Your task to perform on an android device: empty trash in google photos Image 0: 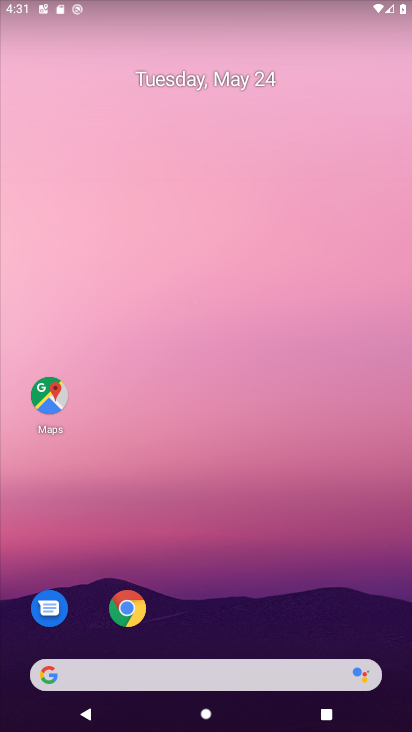
Step 0: drag from (211, 644) to (209, 240)
Your task to perform on an android device: empty trash in google photos Image 1: 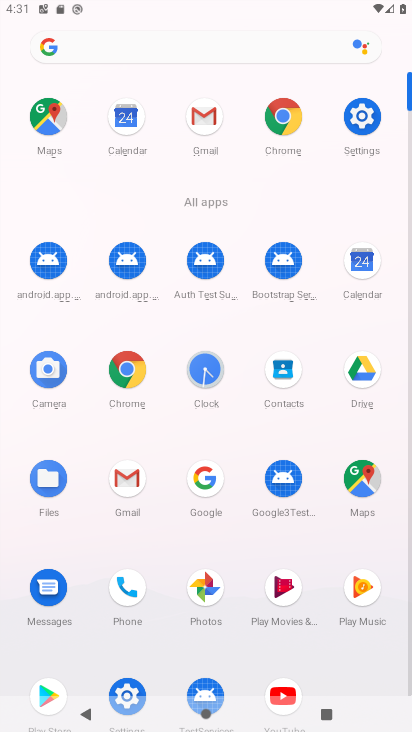
Step 1: click (208, 585)
Your task to perform on an android device: empty trash in google photos Image 2: 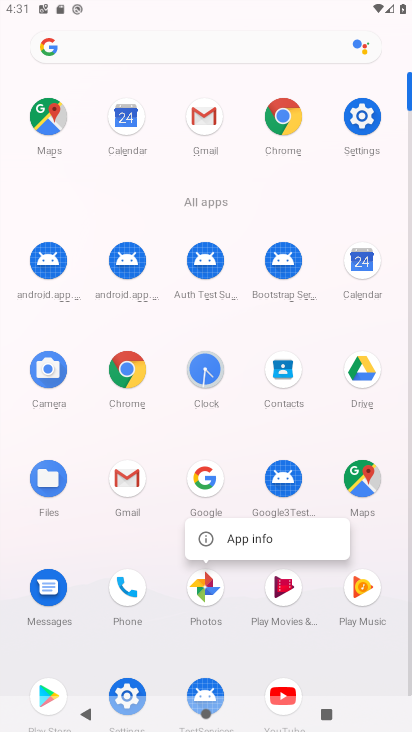
Step 2: click (203, 580)
Your task to perform on an android device: empty trash in google photos Image 3: 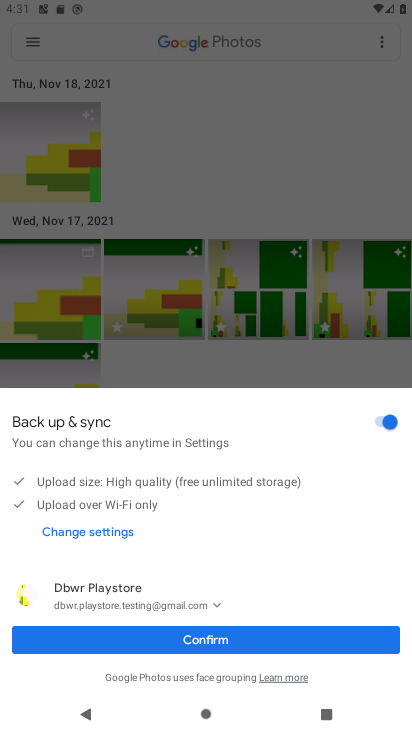
Step 3: click (212, 630)
Your task to perform on an android device: empty trash in google photos Image 4: 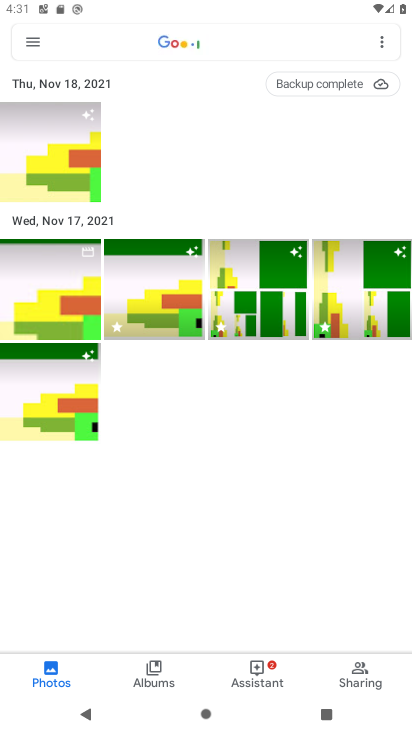
Step 4: click (30, 43)
Your task to perform on an android device: empty trash in google photos Image 5: 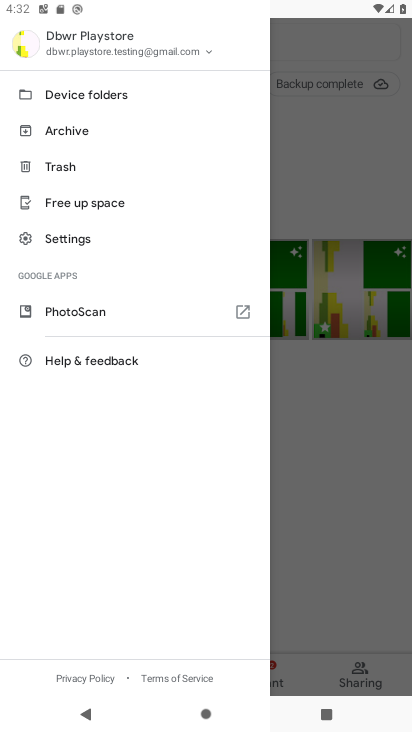
Step 5: click (45, 172)
Your task to perform on an android device: empty trash in google photos Image 6: 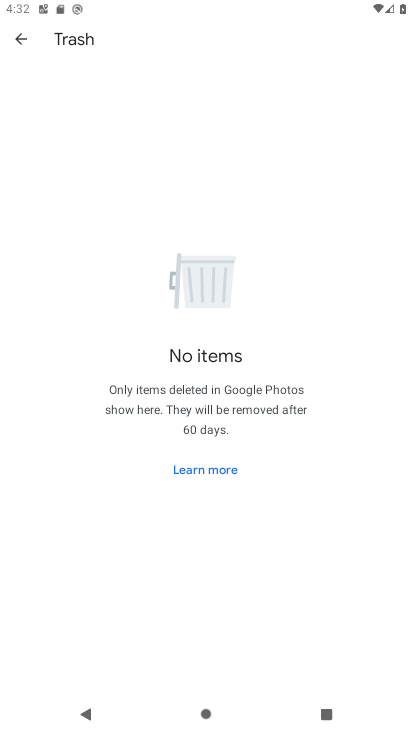
Step 6: task complete